Your task to perform on an android device: Show the shopping cart on ebay. Add acer predator to the cart on ebay, then select checkout. Image 0: 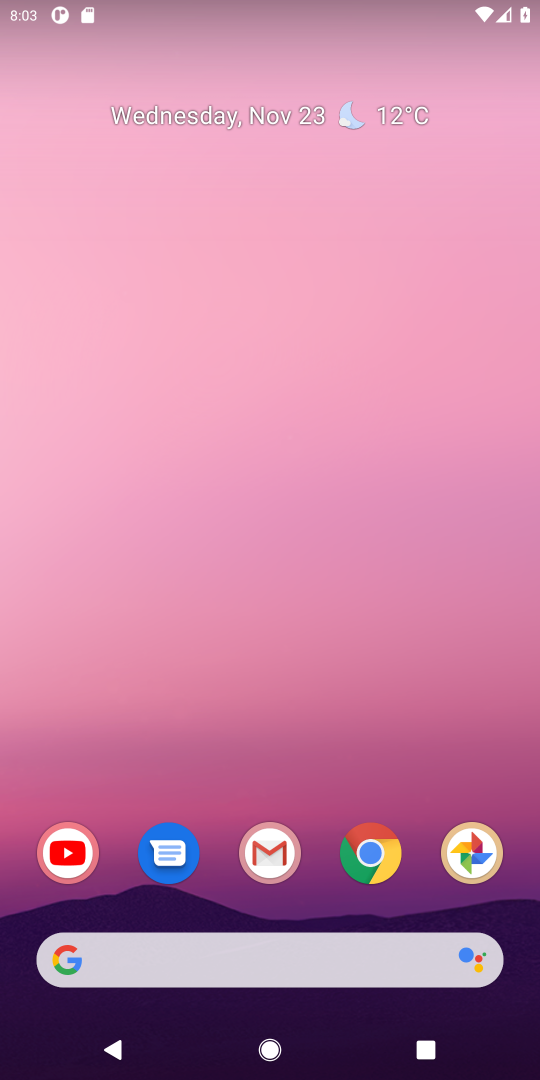
Step 0: click (383, 850)
Your task to perform on an android device: Show the shopping cart on ebay. Add acer predator to the cart on ebay, then select checkout. Image 1: 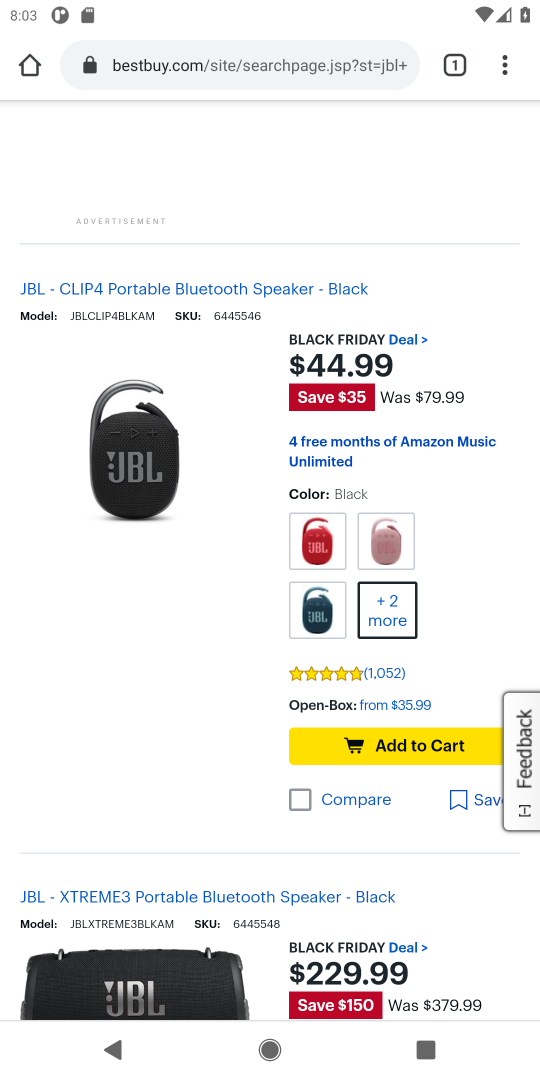
Step 1: click (196, 68)
Your task to perform on an android device: Show the shopping cart on ebay. Add acer predator to the cart on ebay, then select checkout. Image 2: 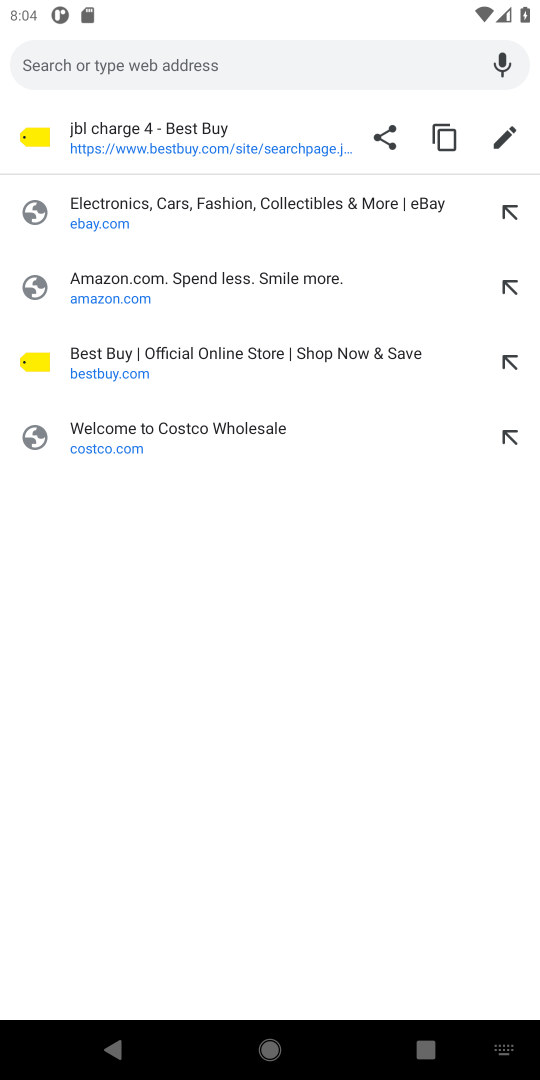
Step 2: click (85, 219)
Your task to perform on an android device: Show the shopping cart on ebay. Add acer predator to the cart on ebay, then select checkout. Image 3: 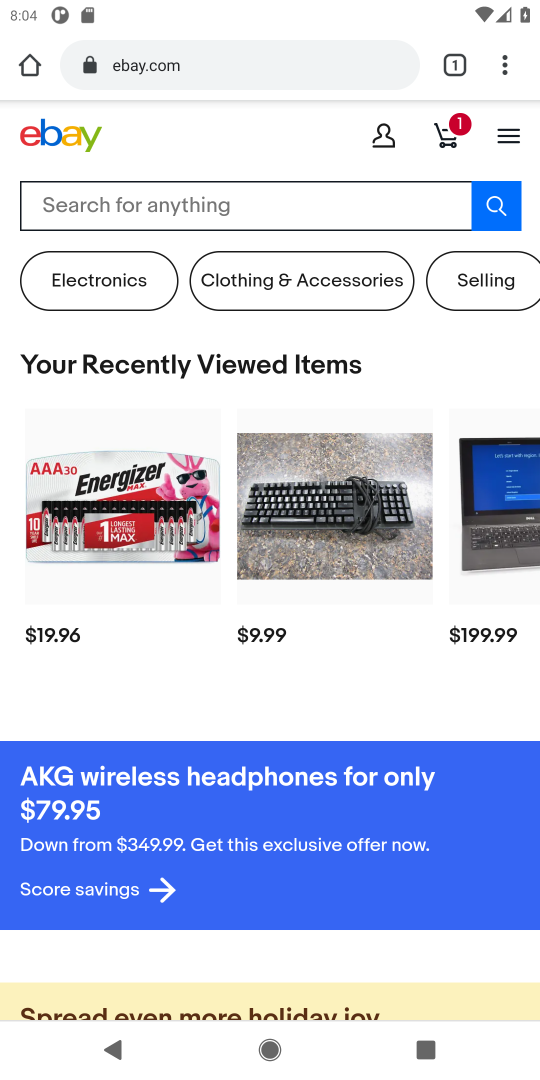
Step 3: click (459, 131)
Your task to perform on an android device: Show the shopping cart on ebay. Add acer predator to the cart on ebay, then select checkout. Image 4: 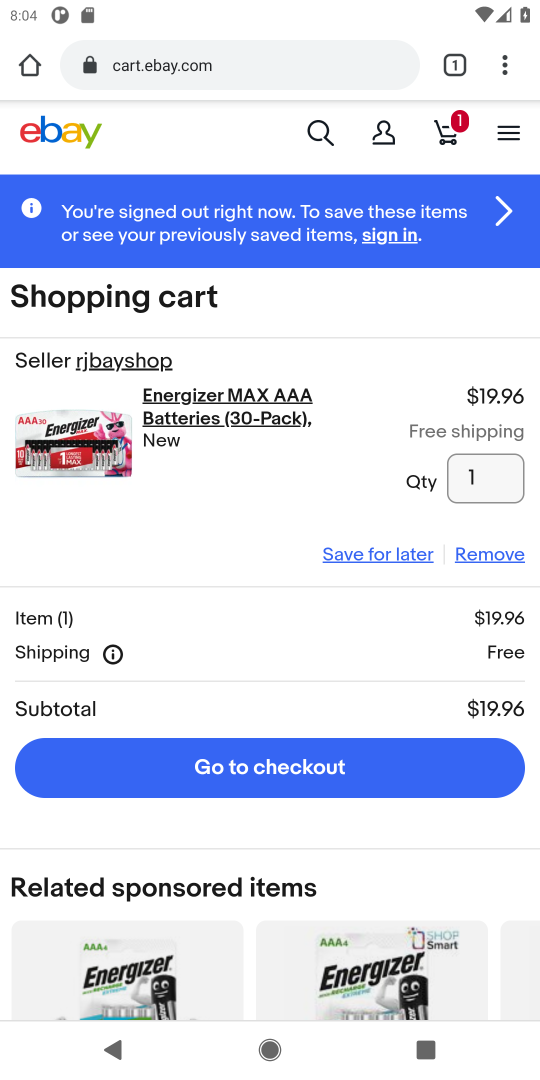
Step 4: click (313, 127)
Your task to perform on an android device: Show the shopping cart on ebay. Add acer predator to the cart on ebay, then select checkout. Image 5: 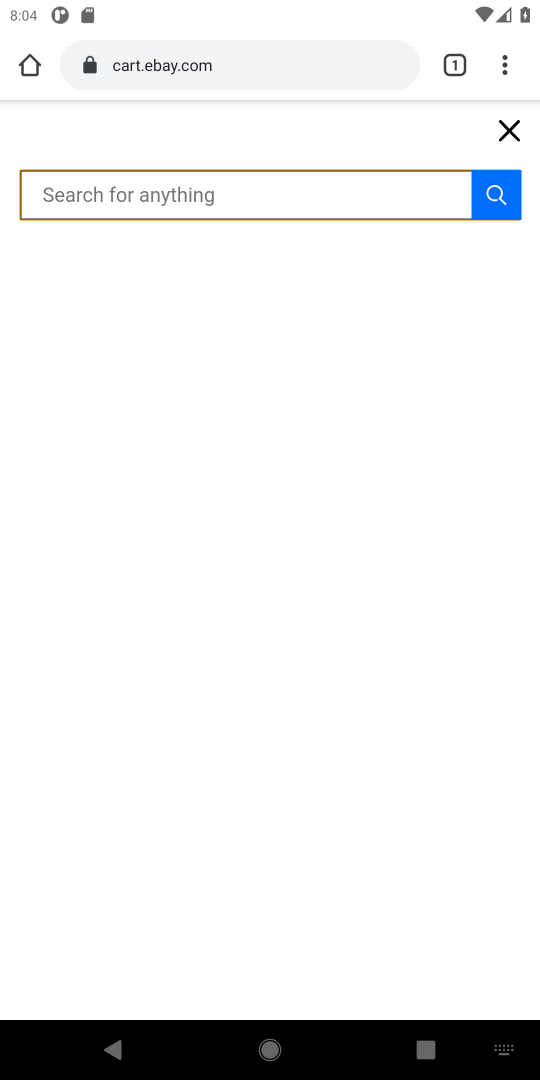
Step 5: type "acer predator"
Your task to perform on an android device: Show the shopping cart on ebay. Add acer predator to the cart on ebay, then select checkout. Image 6: 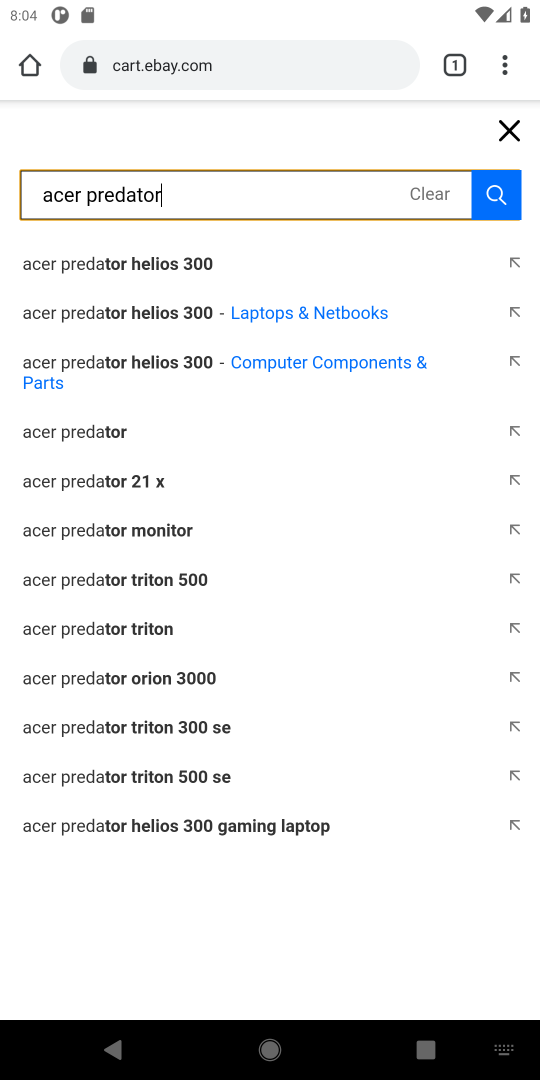
Step 6: click (75, 431)
Your task to perform on an android device: Show the shopping cart on ebay. Add acer predator to the cart on ebay, then select checkout. Image 7: 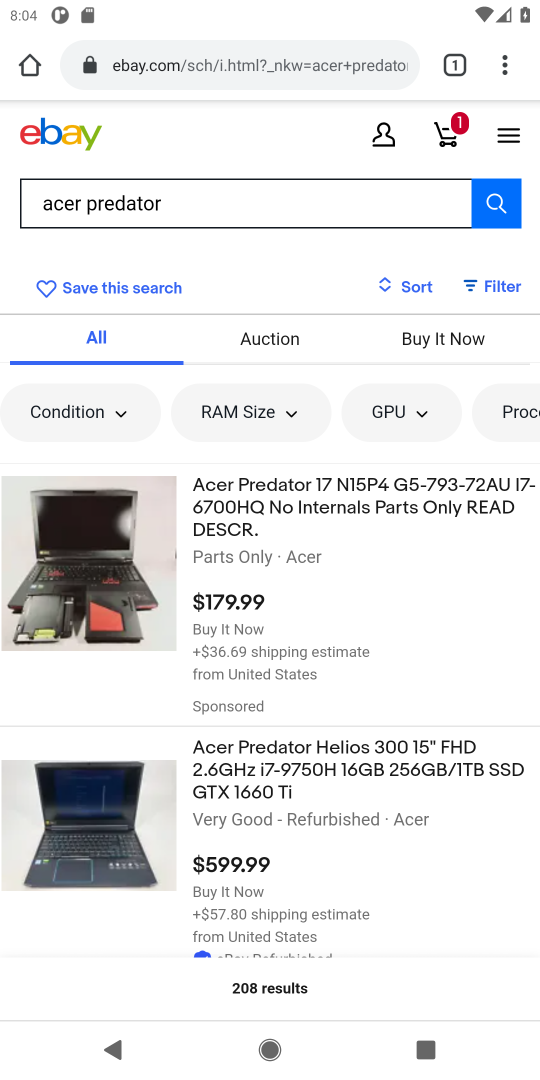
Step 7: click (104, 597)
Your task to perform on an android device: Show the shopping cart on ebay. Add acer predator to the cart on ebay, then select checkout. Image 8: 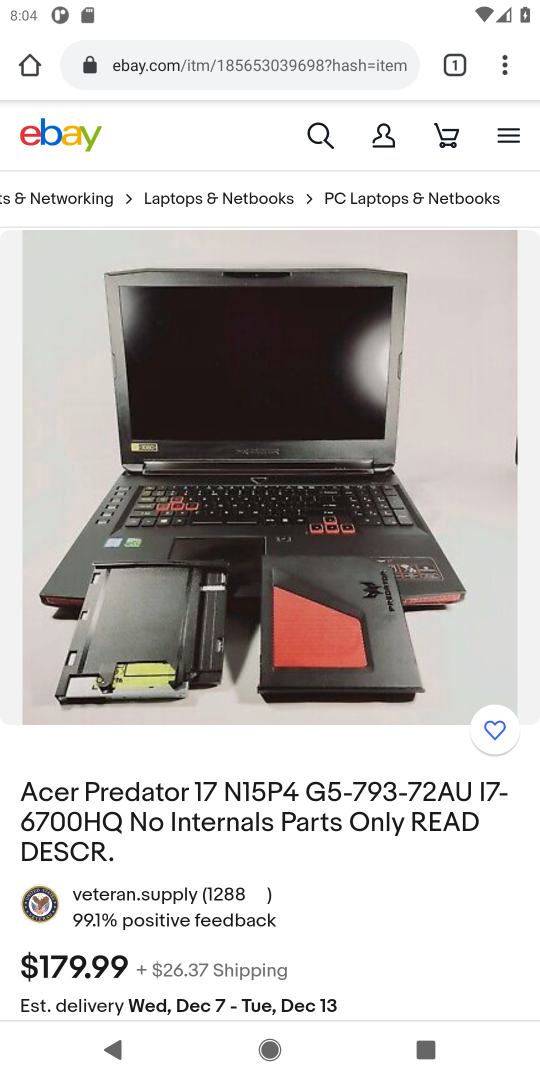
Step 8: drag from (242, 852) to (203, 399)
Your task to perform on an android device: Show the shopping cart on ebay. Add acer predator to the cart on ebay, then select checkout. Image 9: 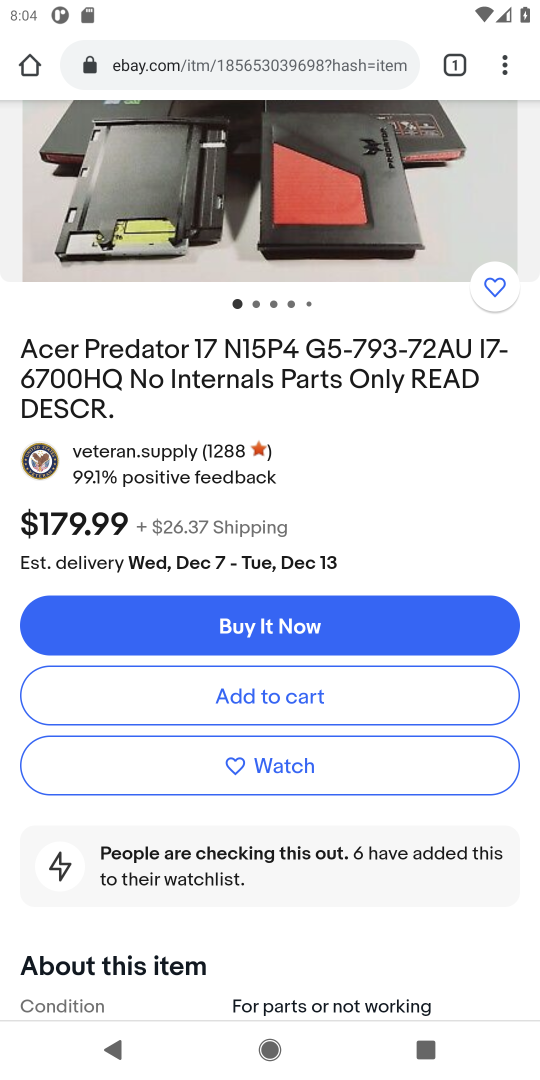
Step 9: click (234, 695)
Your task to perform on an android device: Show the shopping cart on ebay. Add acer predator to the cart on ebay, then select checkout. Image 10: 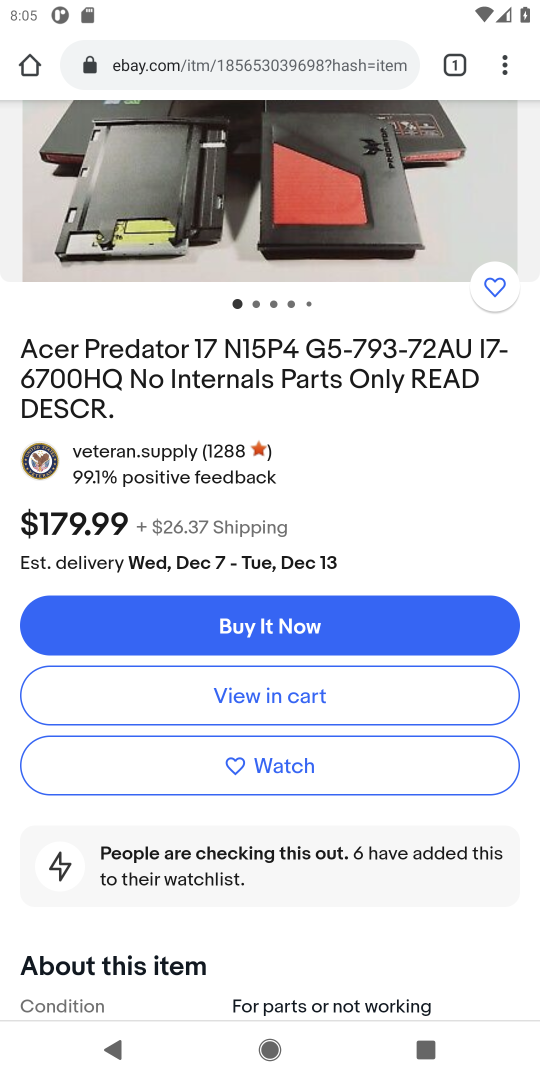
Step 10: click (234, 695)
Your task to perform on an android device: Show the shopping cart on ebay. Add acer predator to the cart on ebay, then select checkout. Image 11: 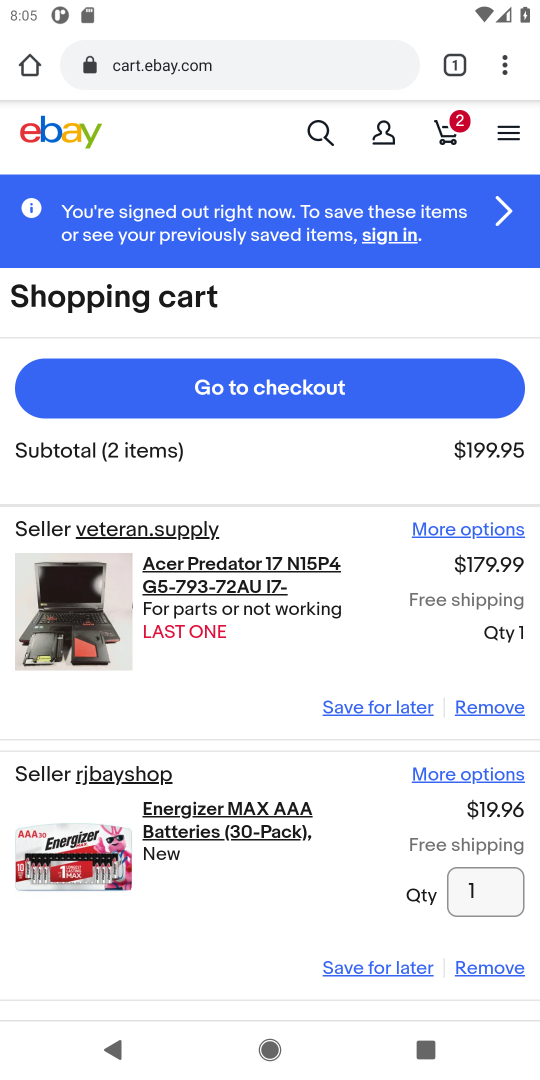
Step 11: click (256, 390)
Your task to perform on an android device: Show the shopping cart on ebay. Add acer predator to the cart on ebay, then select checkout. Image 12: 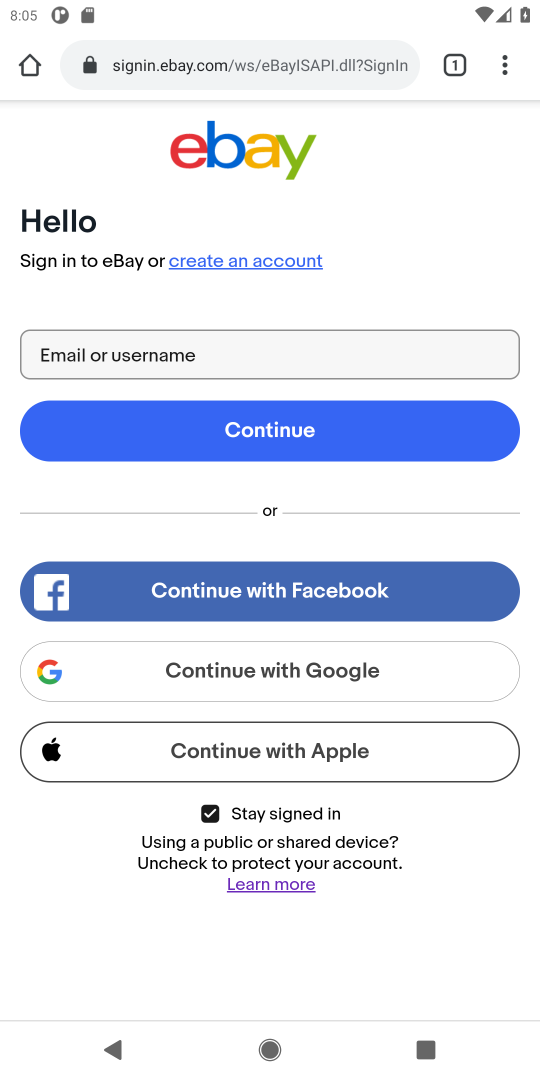
Step 12: task complete